Your task to perform on an android device: Go to Wikipedia Image 0: 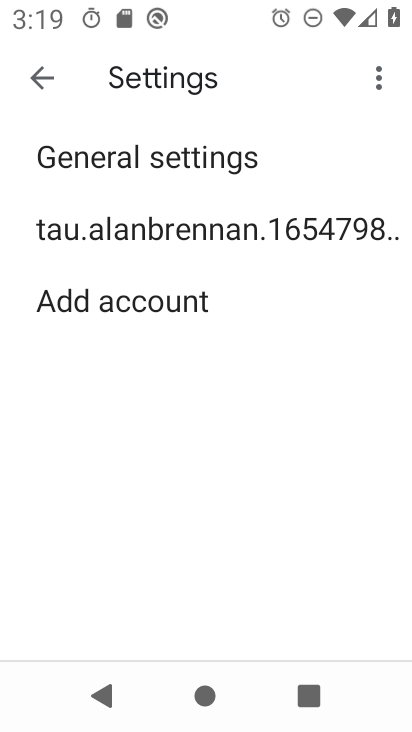
Step 0: press home button
Your task to perform on an android device: Go to Wikipedia Image 1: 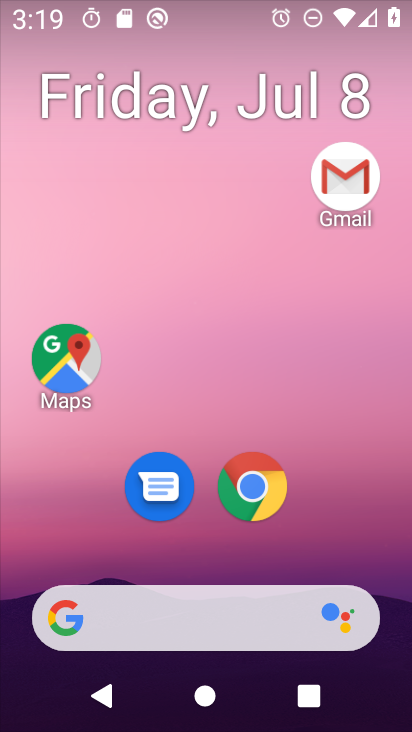
Step 1: drag from (370, 549) to (372, 98)
Your task to perform on an android device: Go to Wikipedia Image 2: 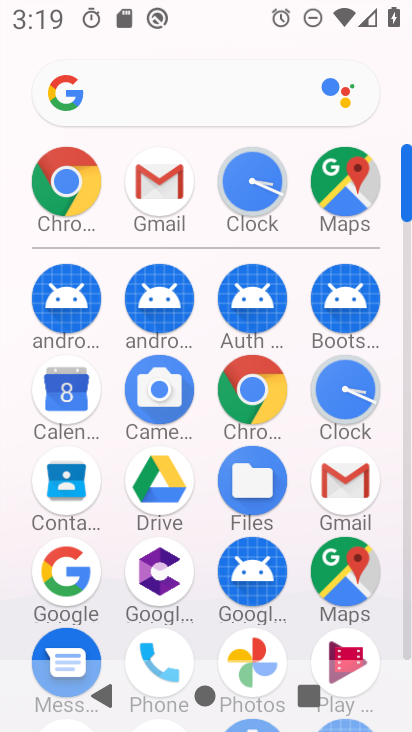
Step 2: click (268, 397)
Your task to perform on an android device: Go to Wikipedia Image 3: 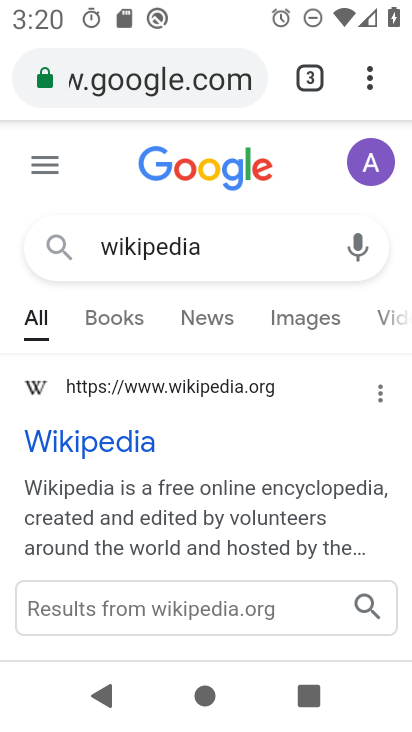
Step 3: task complete